Your task to perform on an android device: Open accessibility settings Image 0: 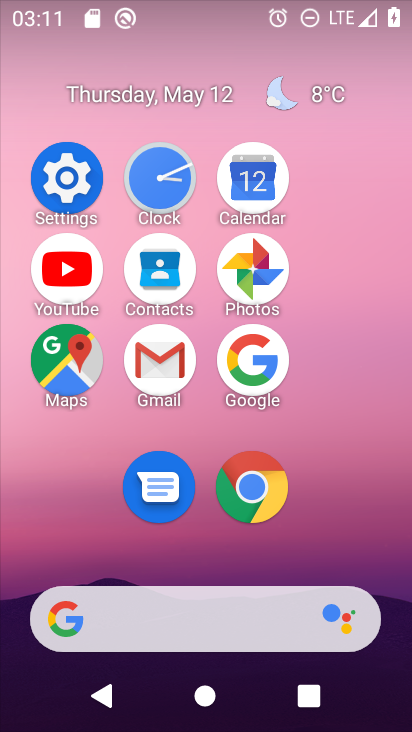
Step 0: click (65, 188)
Your task to perform on an android device: Open accessibility settings Image 1: 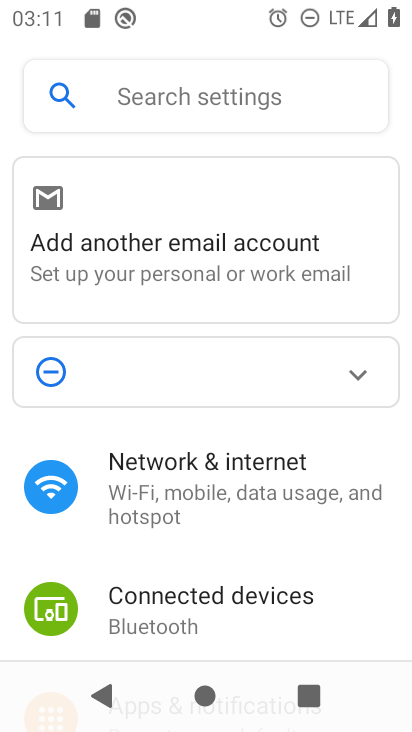
Step 1: drag from (244, 587) to (308, 158)
Your task to perform on an android device: Open accessibility settings Image 2: 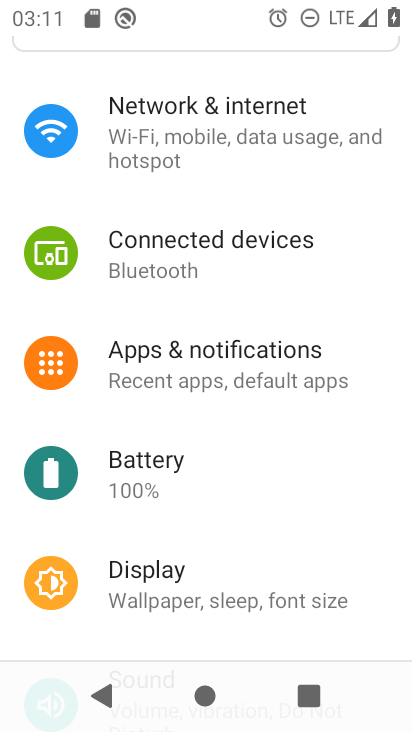
Step 2: drag from (278, 587) to (251, 193)
Your task to perform on an android device: Open accessibility settings Image 3: 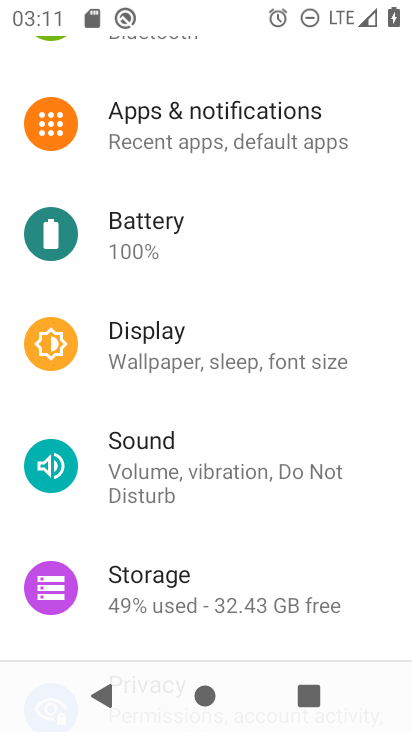
Step 3: drag from (350, 605) to (362, 202)
Your task to perform on an android device: Open accessibility settings Image 4: 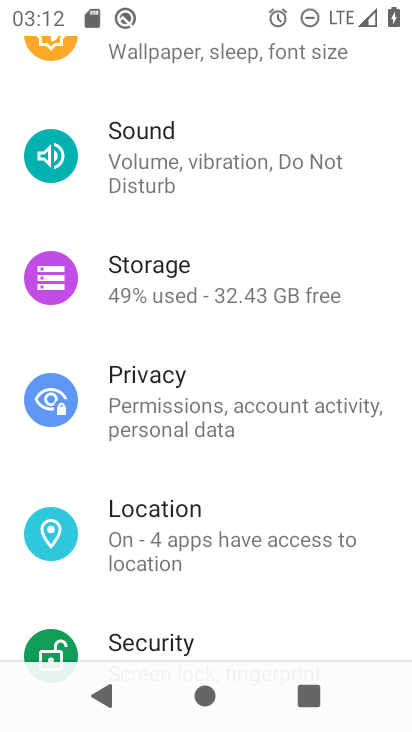
Step 4: drag from (324, 576) to (263, 152)
Your task to perform on an android device: Open accessibility settings Image 5: 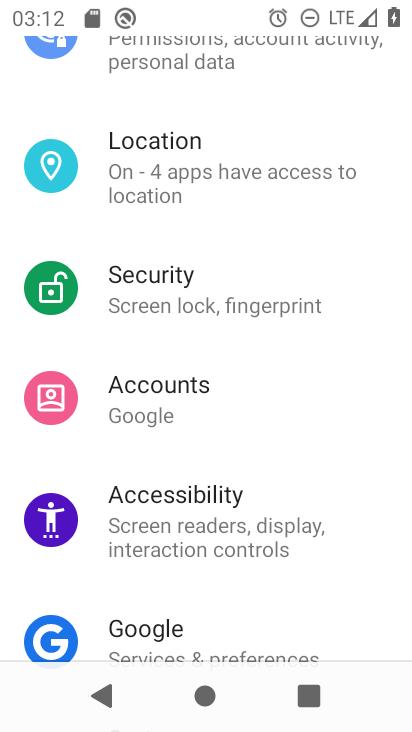
Step 5: click (312, 537)
Your task to perform on an android device: Open accessibility settings Image 6: 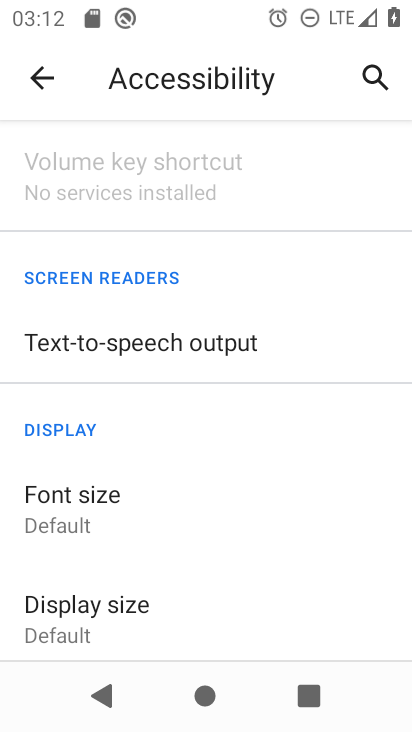
Step 6: task complete